Your task to perform on an android device: stop showing notifications on the lock screen Image 0: 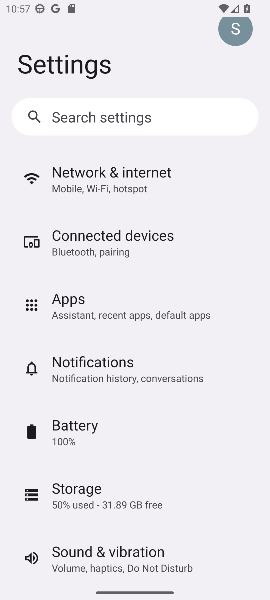
Step 0: press home button
Your task to perform on an android device: stop showing notifications on the lock screen Image 1: 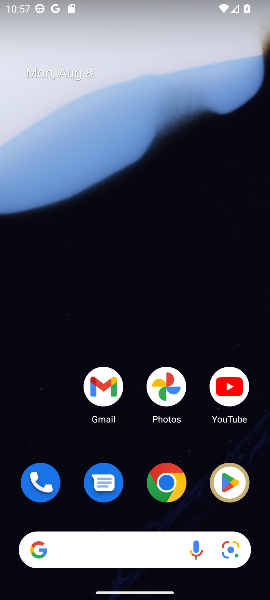
Step 1: drag from (135, 446) to (130, 99)
Your task to perform on an android device: stop showing notifications on the lock screen Image 2: 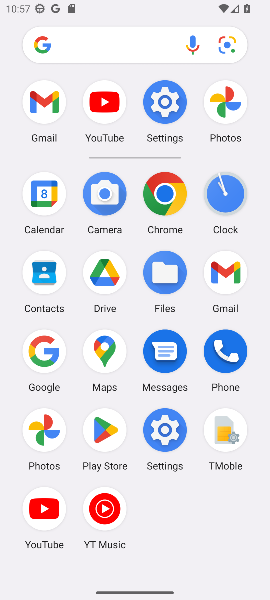
Step 2: click (162, 429)
Your task to perform on an android device: stop showing notifications on the lock screen Image 3: 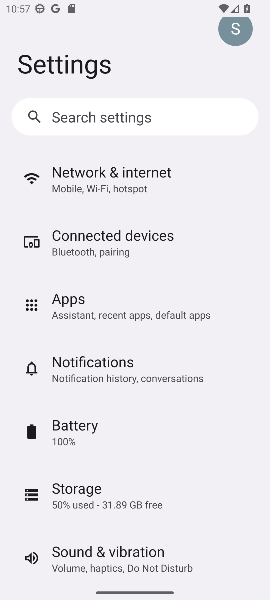
Step 3: click (104, 361)
Your task to perform on an android device: stop showing notifications on the lock screen Image 4: 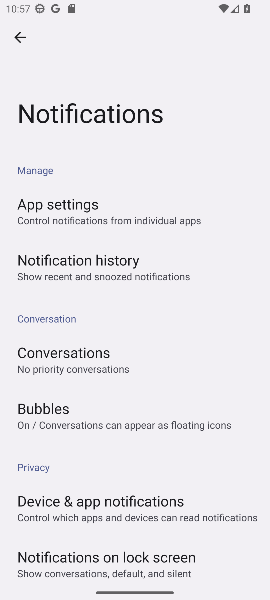
Step 4: drag from (102, 535) to (102, 450)
Your task to perform on an android device: stop showing notifications on the lock screen Image 5: 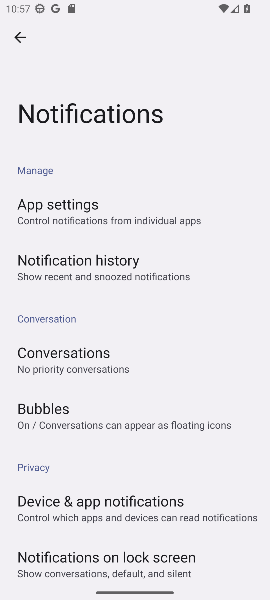
Step 5: click (81, 549)
Your task to perform on an android device: stop showing notifications on the lock screen Image 6: 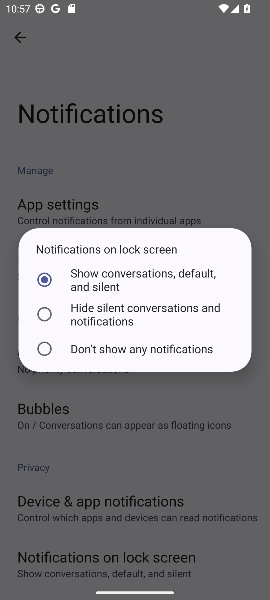
Step 6: click (131, 344)
Your task to perform on an android device: stop showing notifications on the lock screen Image 7: 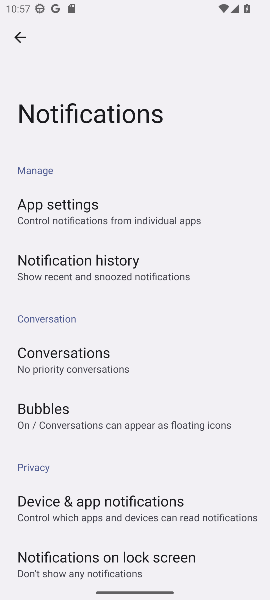
Step 7: task complete